Your task to perform on an android device: turn pop-ups on in chrome Image 0: 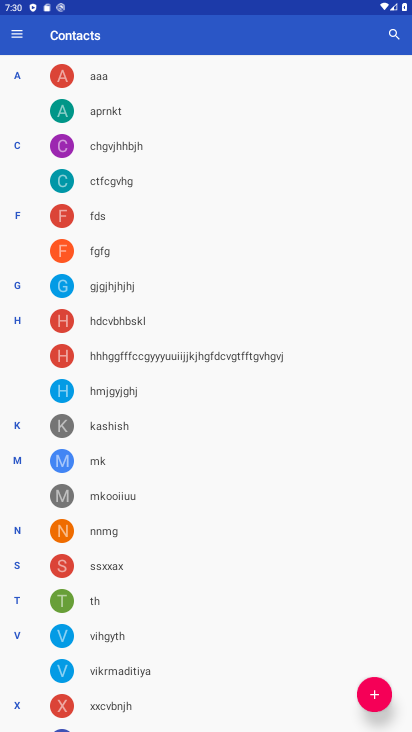
Step 0: press home button
Your task to perform on an android device: turn pop-ups on in chrome Image 1: 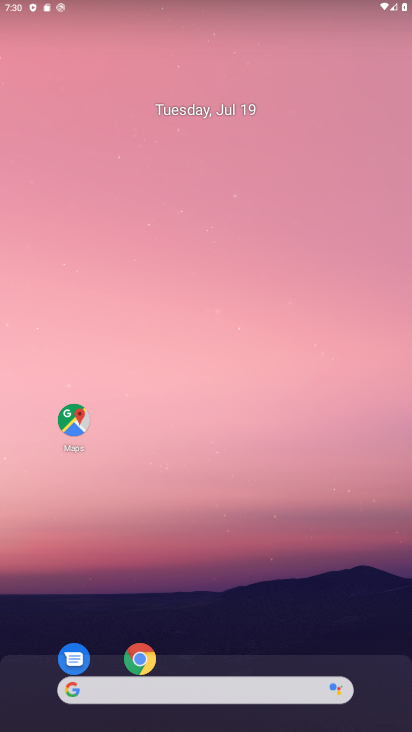
Step 1: click (131, 662)
Your task to perform on an android device: turn pop-ups on in chrome Image 2: 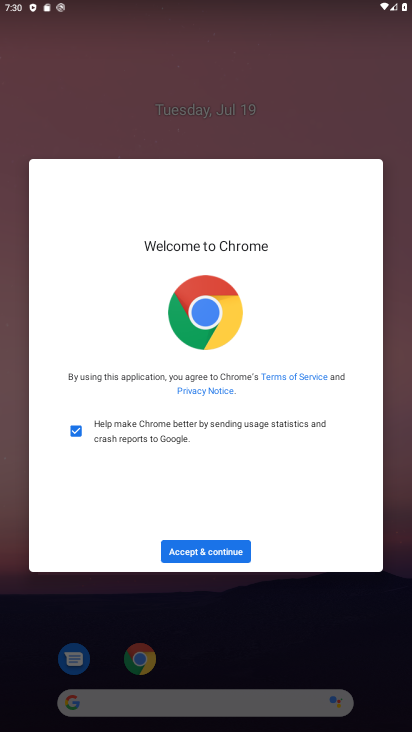
Step 2: click (223, 547)
Your task to perform on an android device: turn pop-ups on in chrome Image 3: 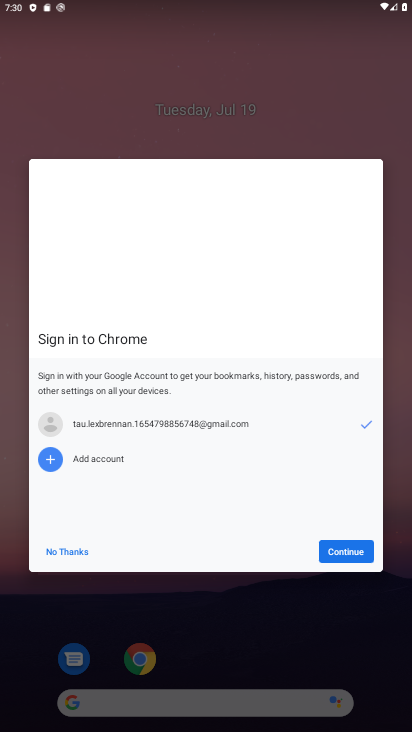
Step 3: click (331, 546)
Your task to perform on an android device: turn pop-ups on in chrome Image 4: 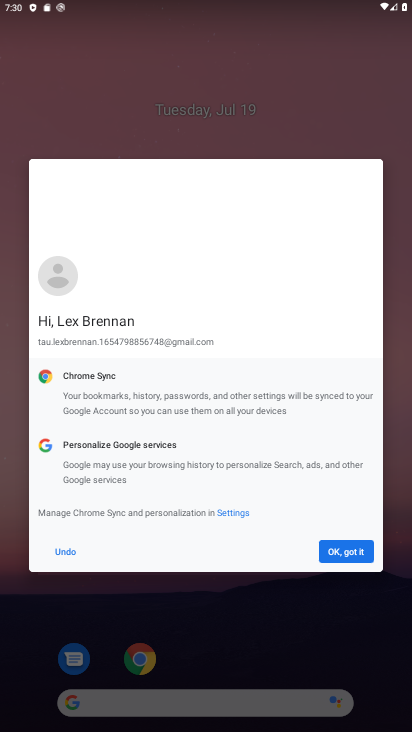
Step 4: click (335, 549)
Your task to perform on an android device: turn pop-ups on in chrome Image 5: 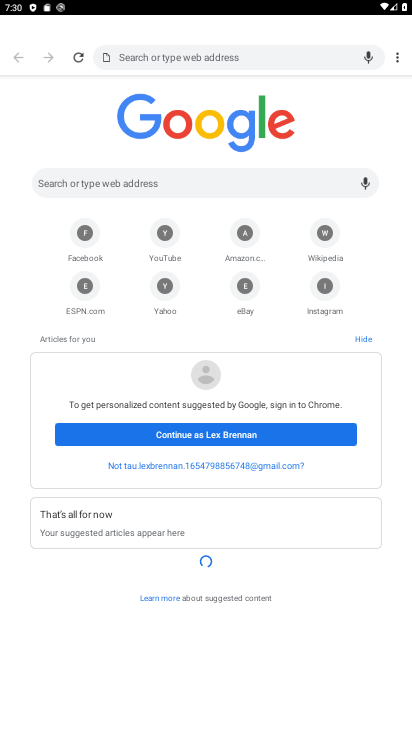
Step 5: click (397, 61)
Your task to perform on an android device: turn pop-ups on in chrome Image 6: 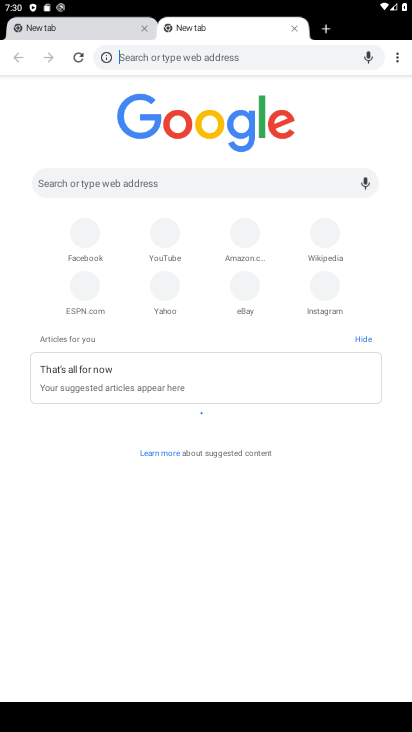
Step 6: click (397, 61)
Your task to perform on an android device: turn pop-ups on in chrome Image 7: 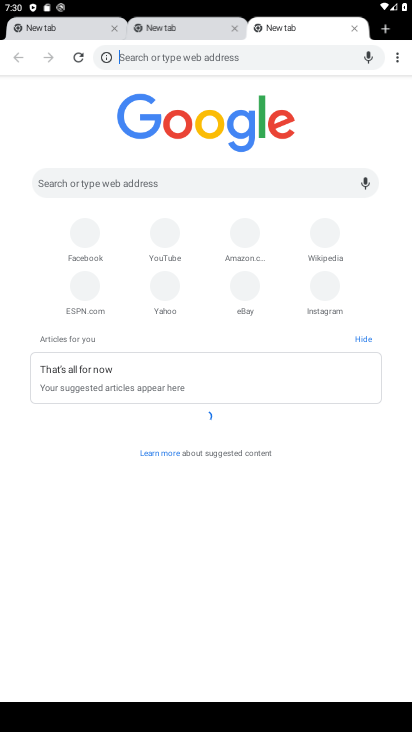
Step 7: click (354, 29)
Your task to perform on an android device: turn pop-ups on in chrome Image 8: 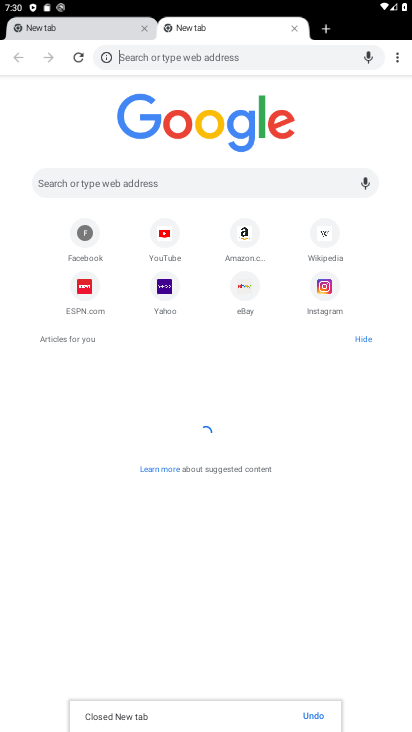
Step 8: click (295, 29)
Your task to perform on an android device: turn pop-ups on in chrome Image 9: 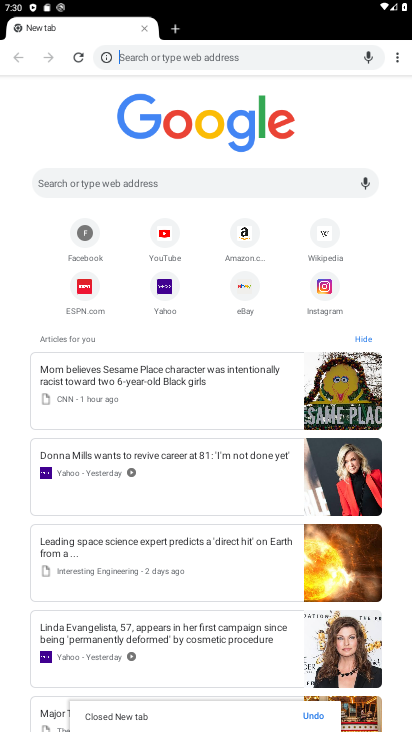
Step 9: click (399, 53)
Your task to perform on an android device: turn pop-ups on in chrome Image 10: 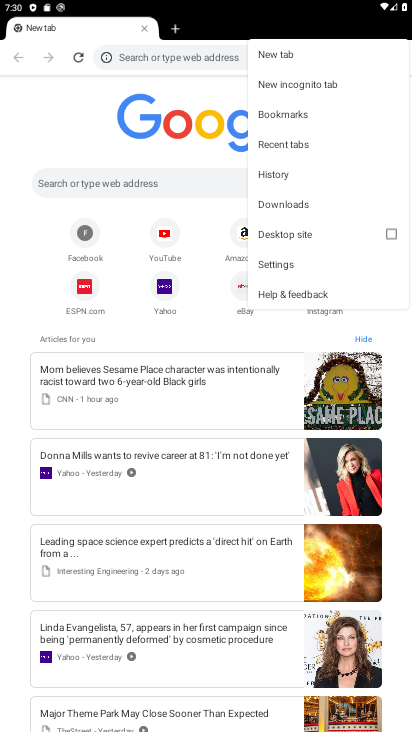
Step 10: click (298, 265)
Your task to perform on an android device: turn pop-ups on in chrome Image 11: 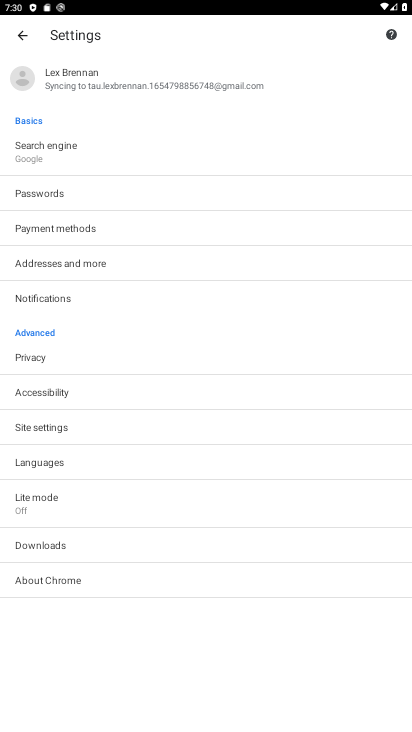
Step 11: click (29, 432)
Your task to perform on an android device: turn pop-ups on in chrome Image 12: 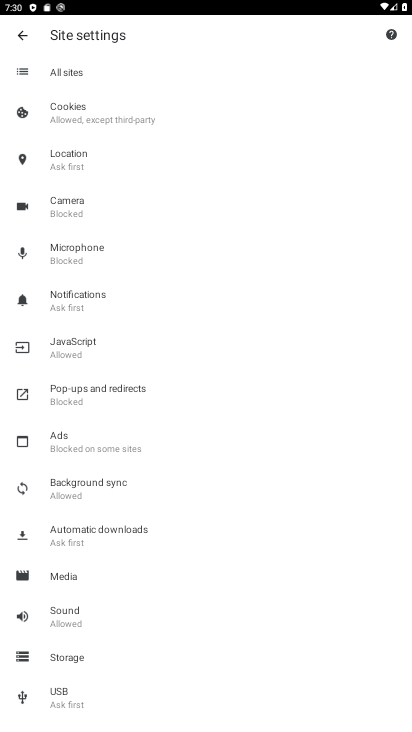
Step 12: click (107, 389)
Your task to perform on an android device: turn pop-ups on in chrome Image 13: 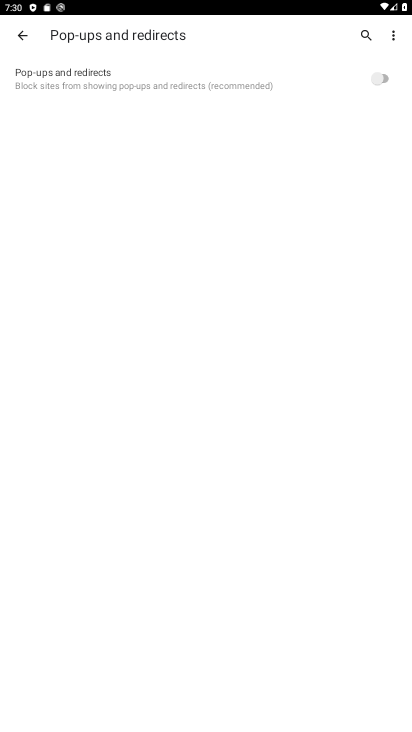
Step 13: click (384, 75)
Your task to perform on an android device: turn pop-ups on in chrome Image 14: 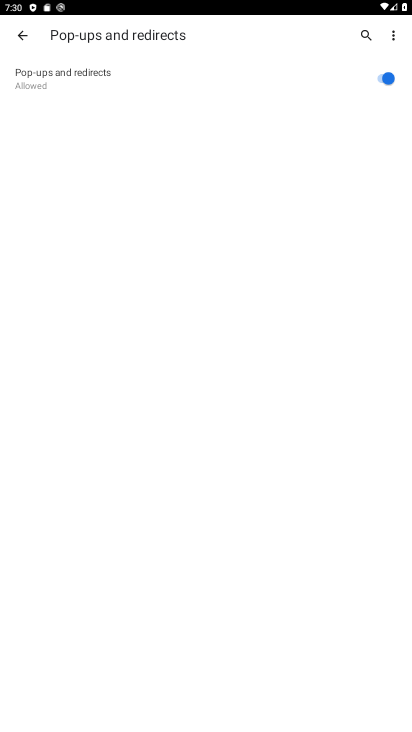
Step 14: task complete